Your task to perform on an android device: turn on sleep mode Image 0: 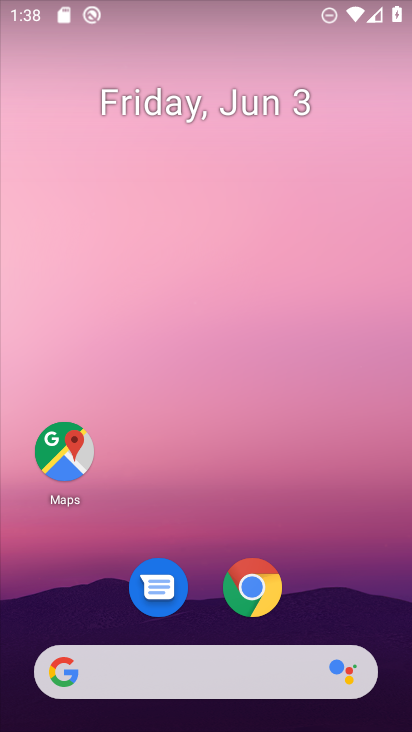
Step 0: drag from (314, 618) to (289, 168)
Your task to perform on an android device: turn on sleep mode Image 1: 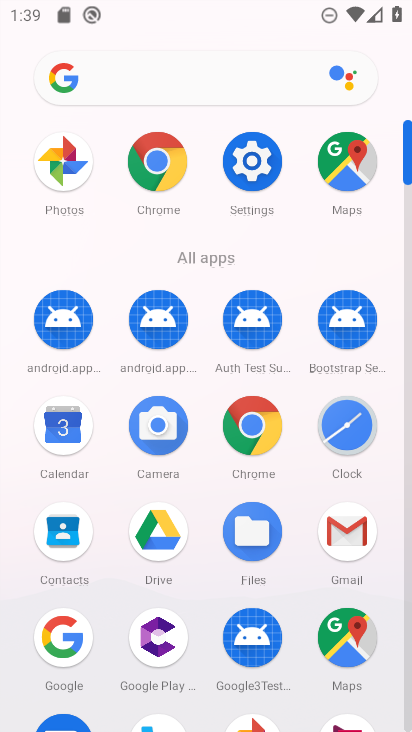
Step 1: click (252, 163)
Your task to perform on an android device: turn on sleep mode Image 2: 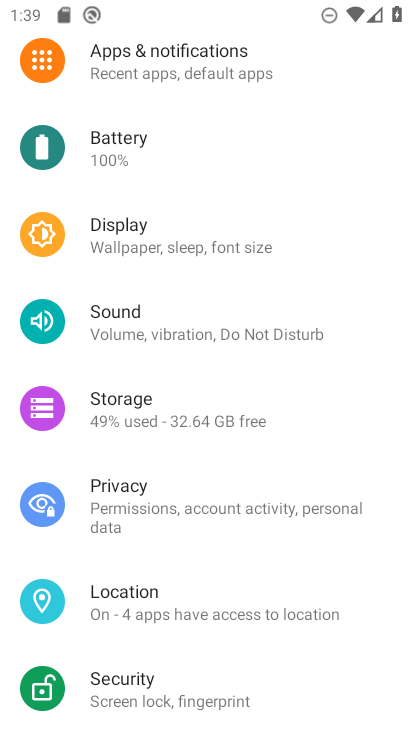
Step 2: drag from (210, 249) to (212, 519)
Your task to perform on an android device: turn on sleep mode Image 3: 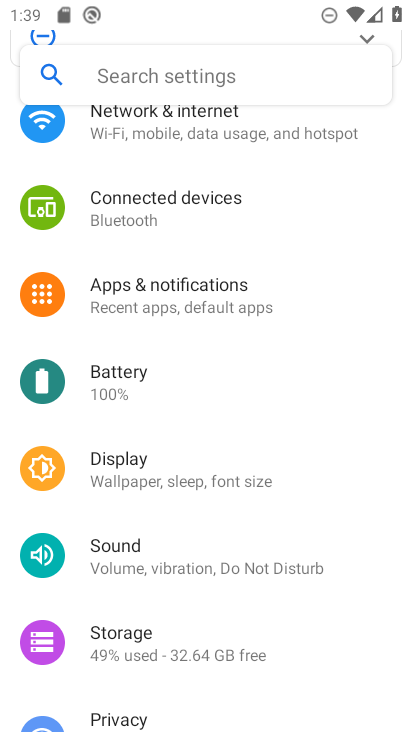
Step 3: click (181, 462)
Your task to perform on an android device: turn on sleep mode Image 4: 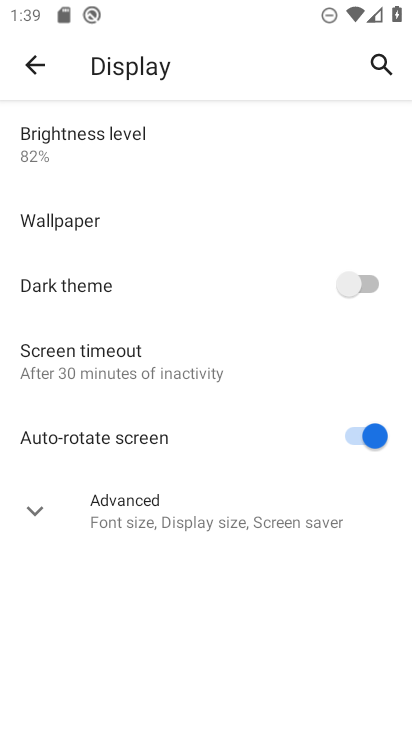
Step 4: task complete